Your task to perform on an android device: Search for pizza restaurants on Maps Image 0: 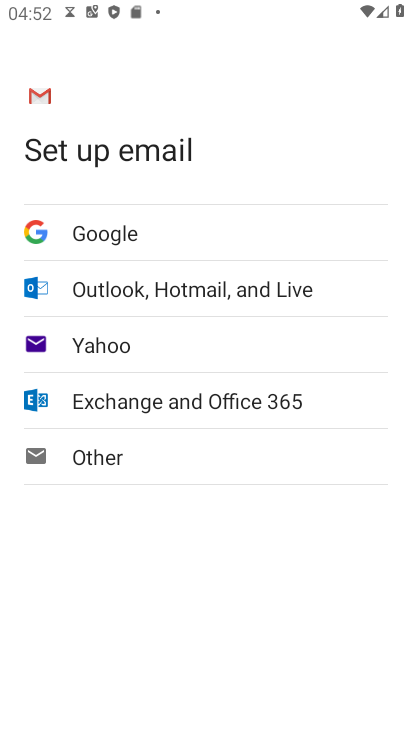
Step 0: press back button
Your task to perform on an android device: Search for pizza restaurants on Maps Image 1: 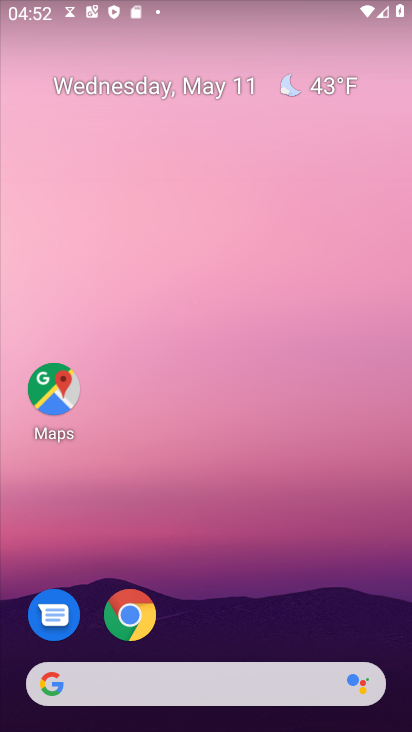
Step 1: drag from (215, 566) to (172, 20)
Your task to perform on an android device: Search for pizza restaurants on Maps Image 2: 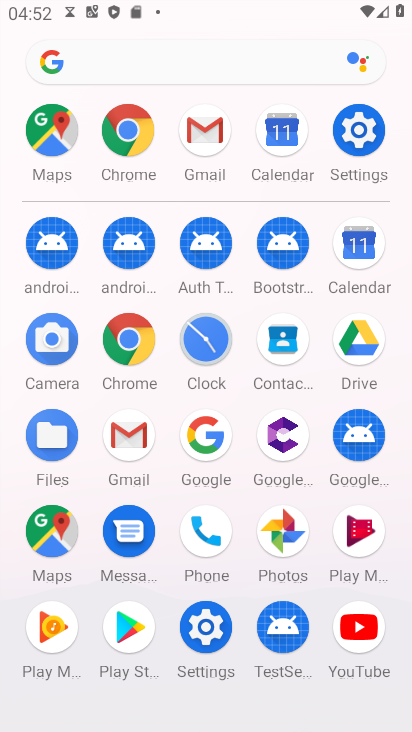
Step 2: click (51, 529)
Your task to perform on an android device: Search for pizza restaurants on Maps Image 3: 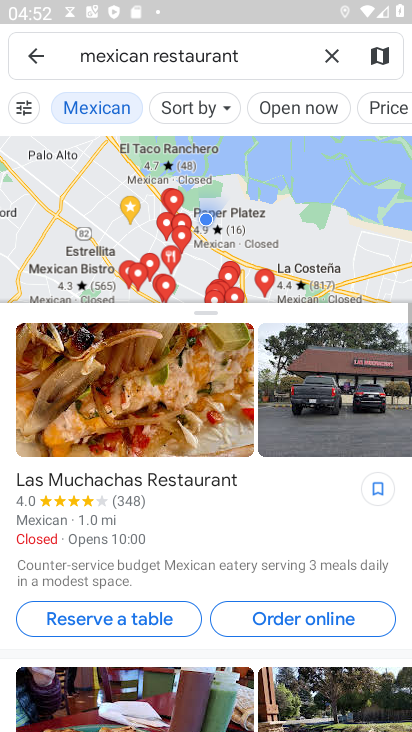
Step 3: click (333, 55)
Your task to perform on an android device: Search for pizza restaurants on Maps Image 4: 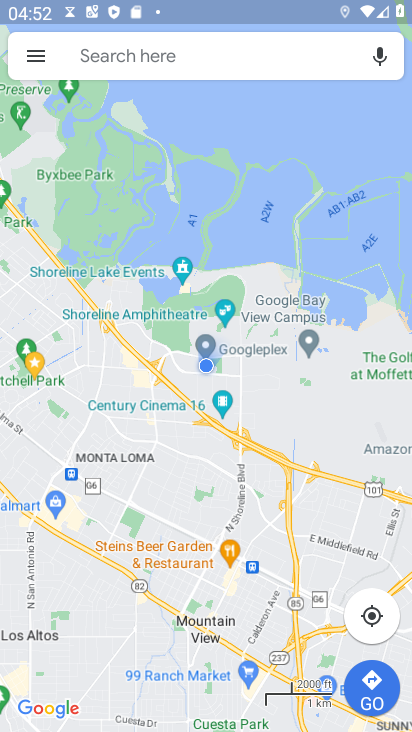
Step 4: click (243, 47)
Your task to perform on an android device: Search for pizza restaurants on Maps Image 5: 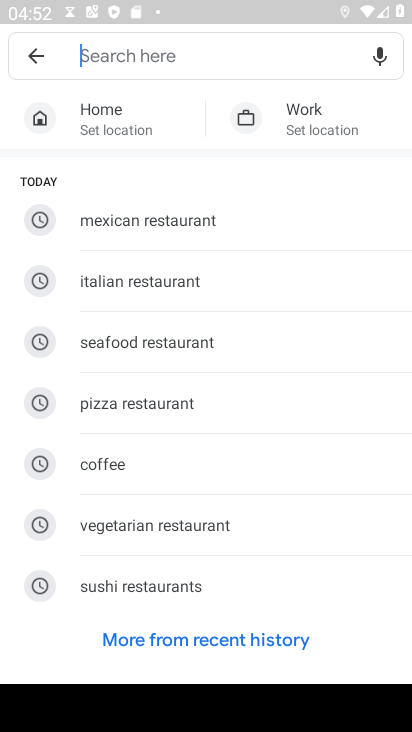
Step 5: click (168, 403)
Your task to perform on an android device: Search for pizza restaurants on Maps Image 6: 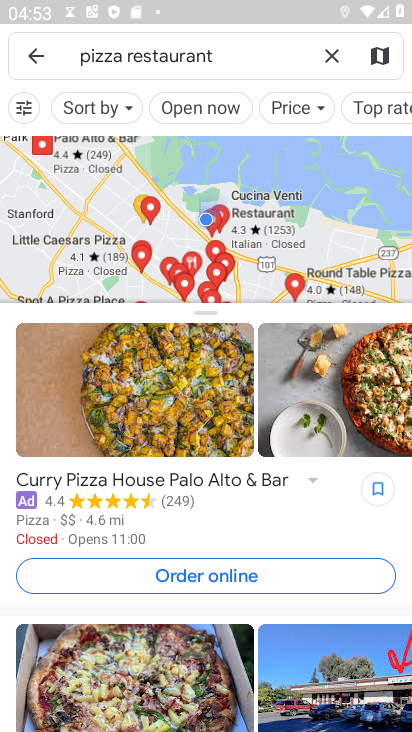
Step 6: task complete